Your task to perform on an android device: Turn off the flashlight Image 0: 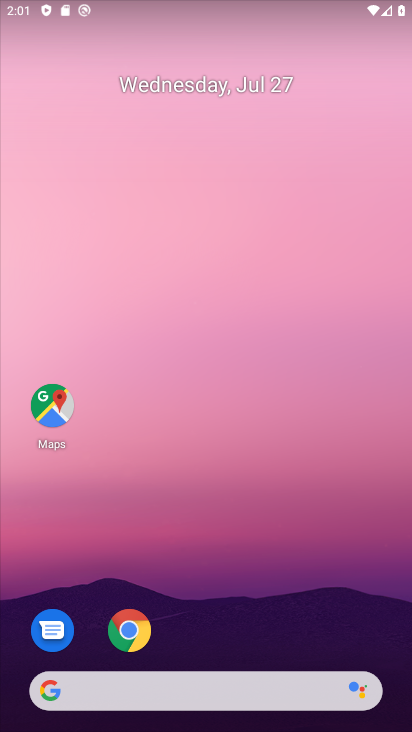
Step 0: drag from (299, 627) to (305, 3)
Your task to perform on an android device: Turn off the flashlight Image 1: 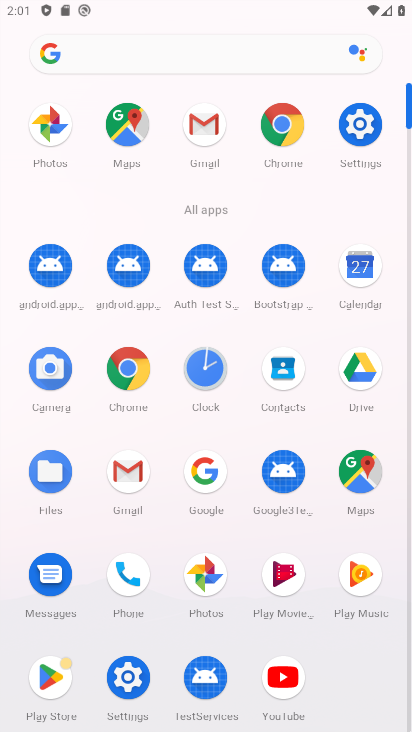
Step 1: click (357, 123)
Your task to perform on an android device: Turn off the flashlight Image 2: 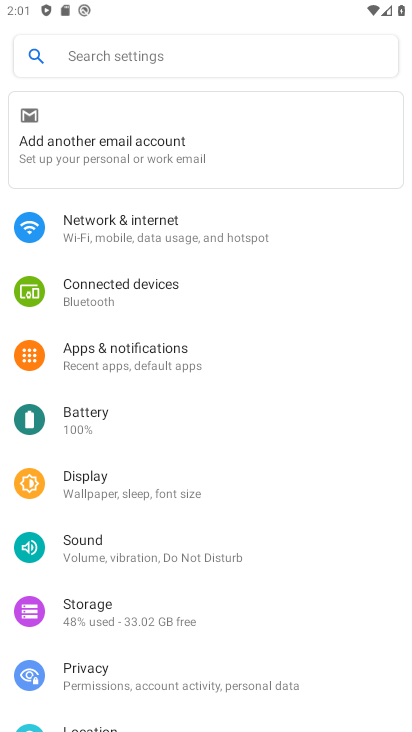
Step 2: task complete